Your task to perform on an android device: Open Android settings Image 0: 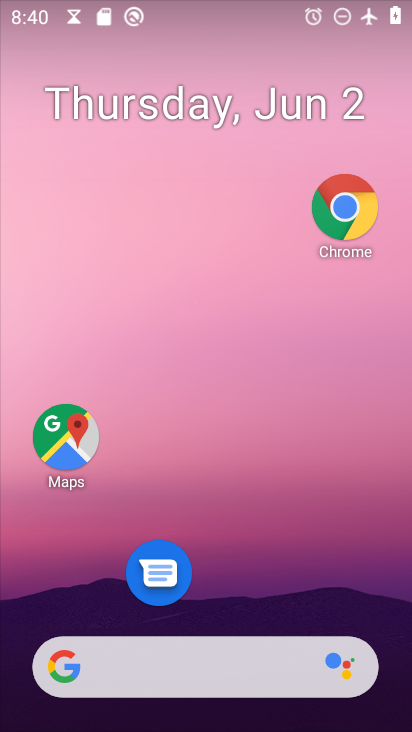
Step 0: press home button
Your task to perform on an android device: Open Android settings Image 1: 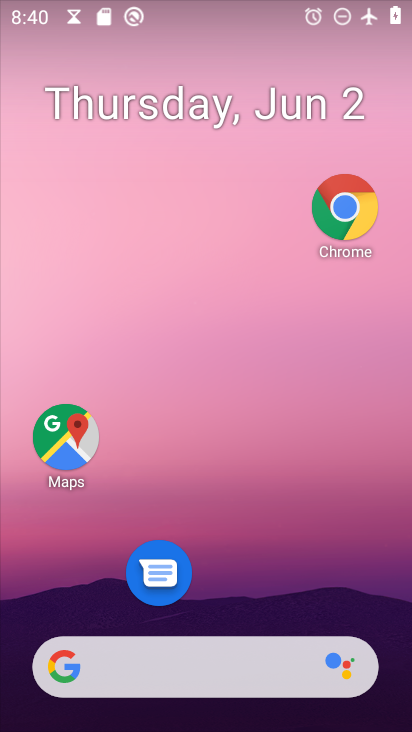
Step 1: drag from (193, 611) to (297, 189)
Your task to perform on an android device: Open Android settings Image 2: 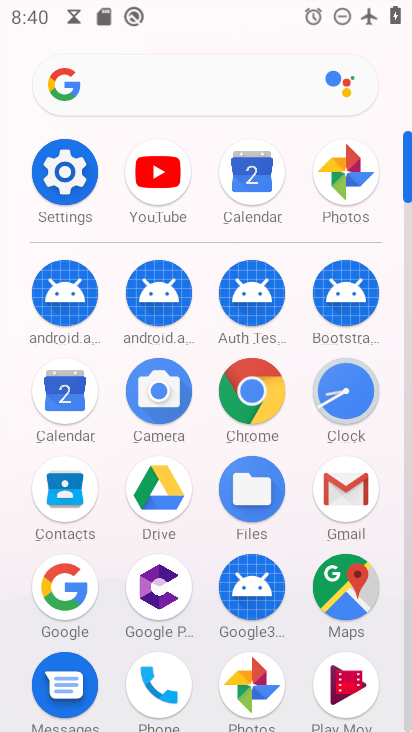
Step 2: click (82, 188)
Your task to perform on an android device: Open Android settings Image 3: 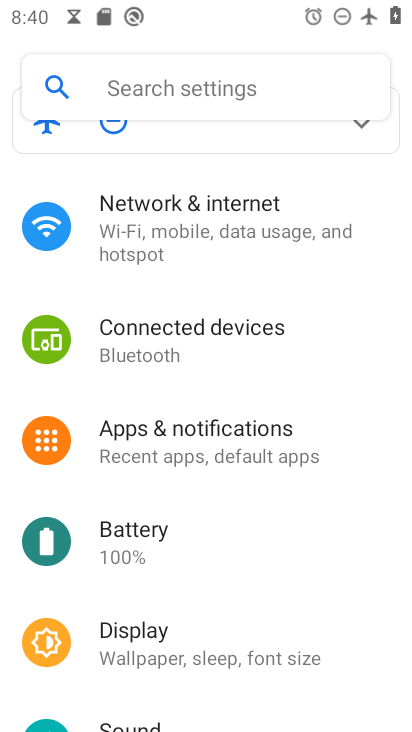
Step 3: task complete